Your task to perform on an android device: Search for vegetarian restaurants on Maps Image 0: 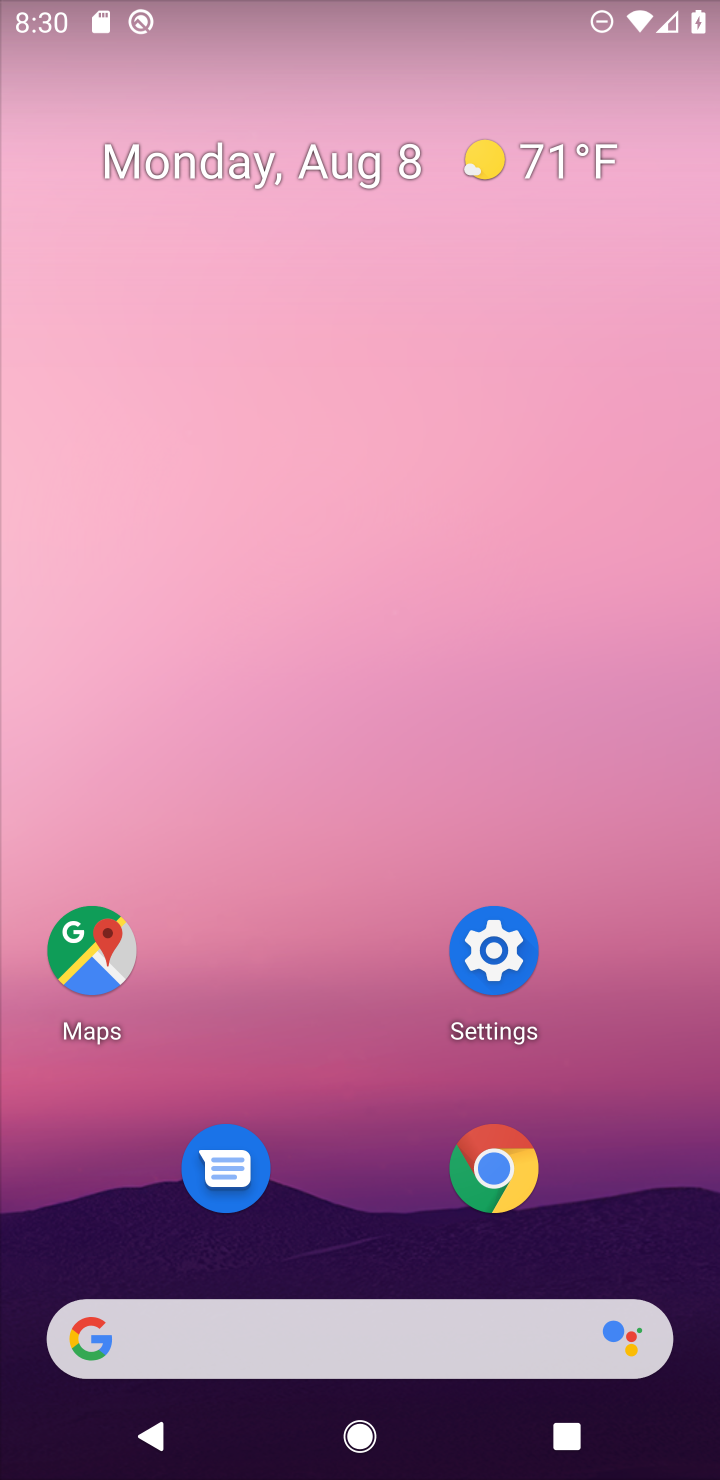
Step 0: press home button
Your task to perform on an android device: Search for vegetarian restaurants on Maps Image 1: 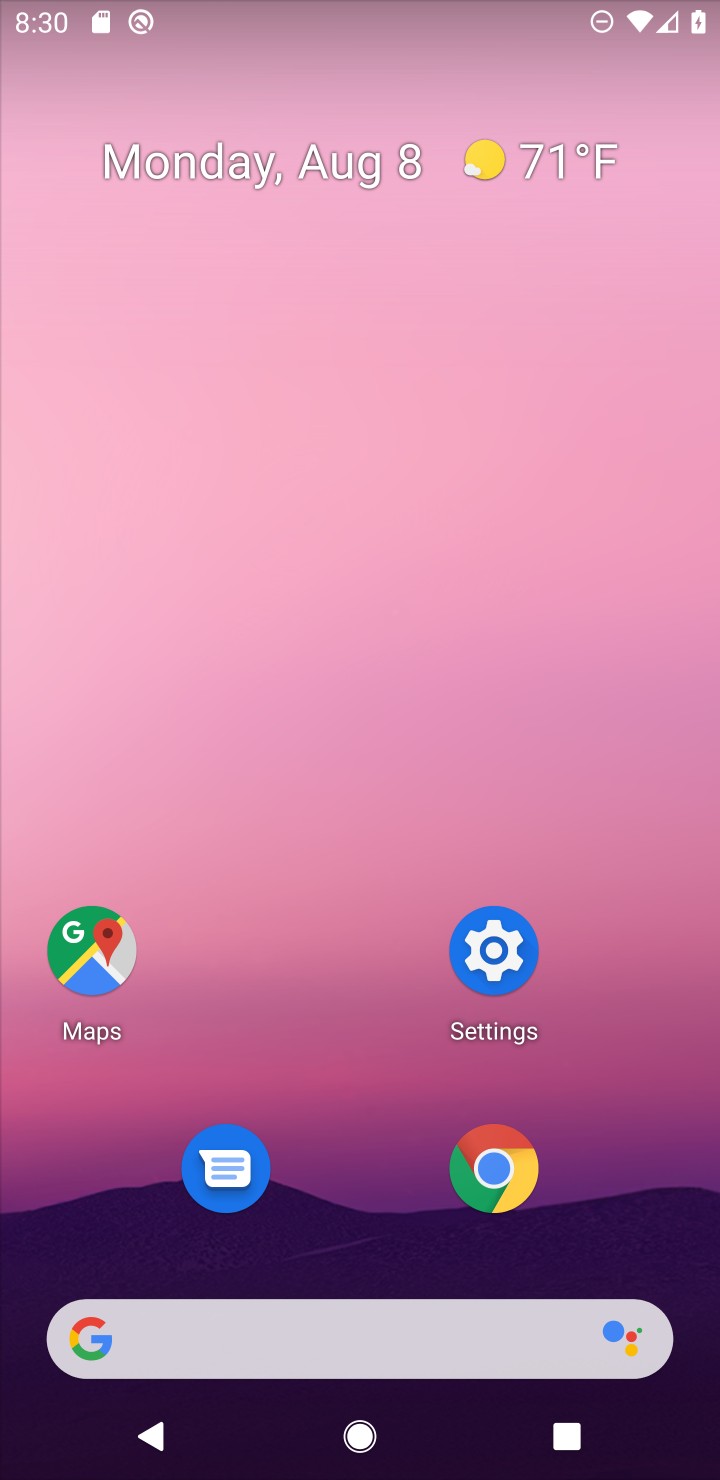
Step 1: click (88, 955)
Your task to perform on an android device: Search for vegetarian restaurants on Maps Image 2: 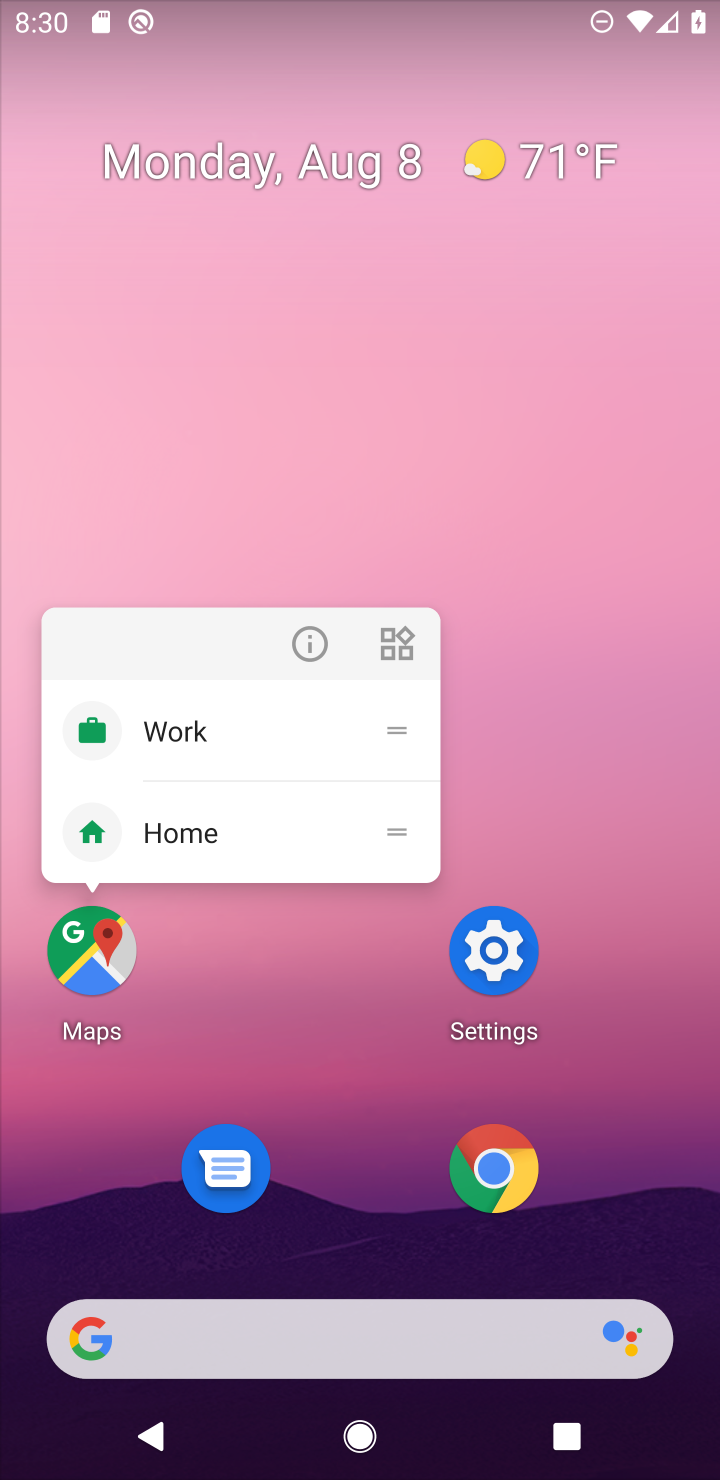
Step 2: click (88, 955)
Your task to perform on an android device: Search for vegetarian restaurants on Maps Image 3: 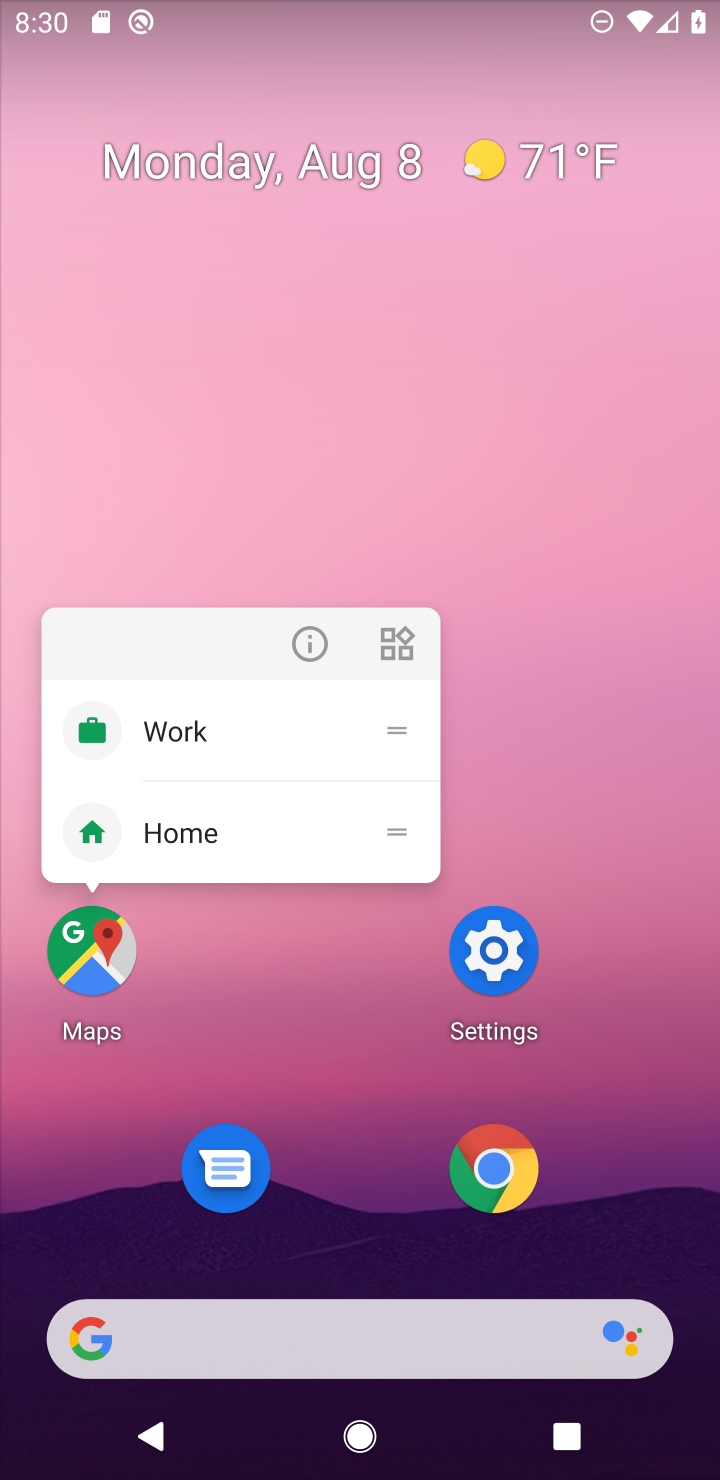
Step 3: click (88, 960)
Your task to perform on an android device: Search for vegetarian restaurants on Maps Image 4: 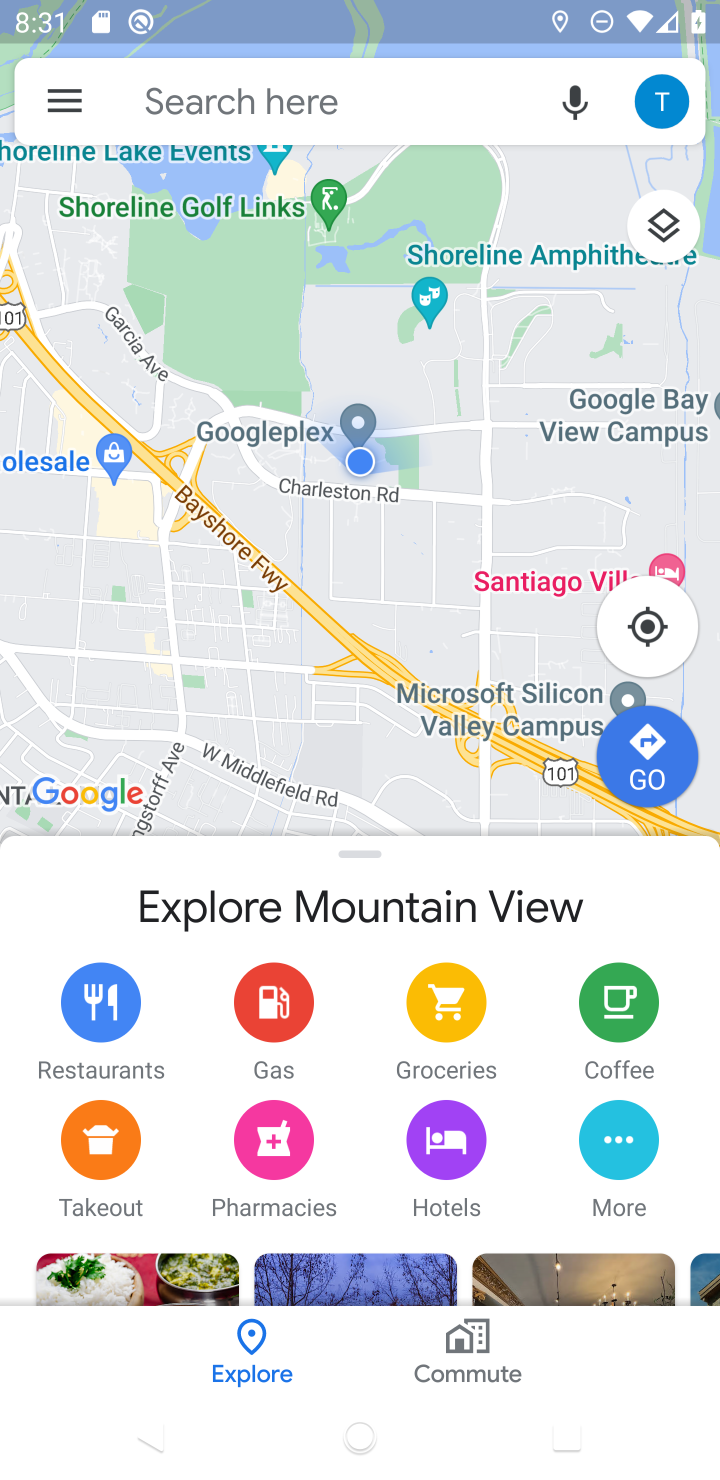
Step 4: click (276, 86)
Your task to perform on an android device: Search for vegetarian restaurants on Maps Image 5: 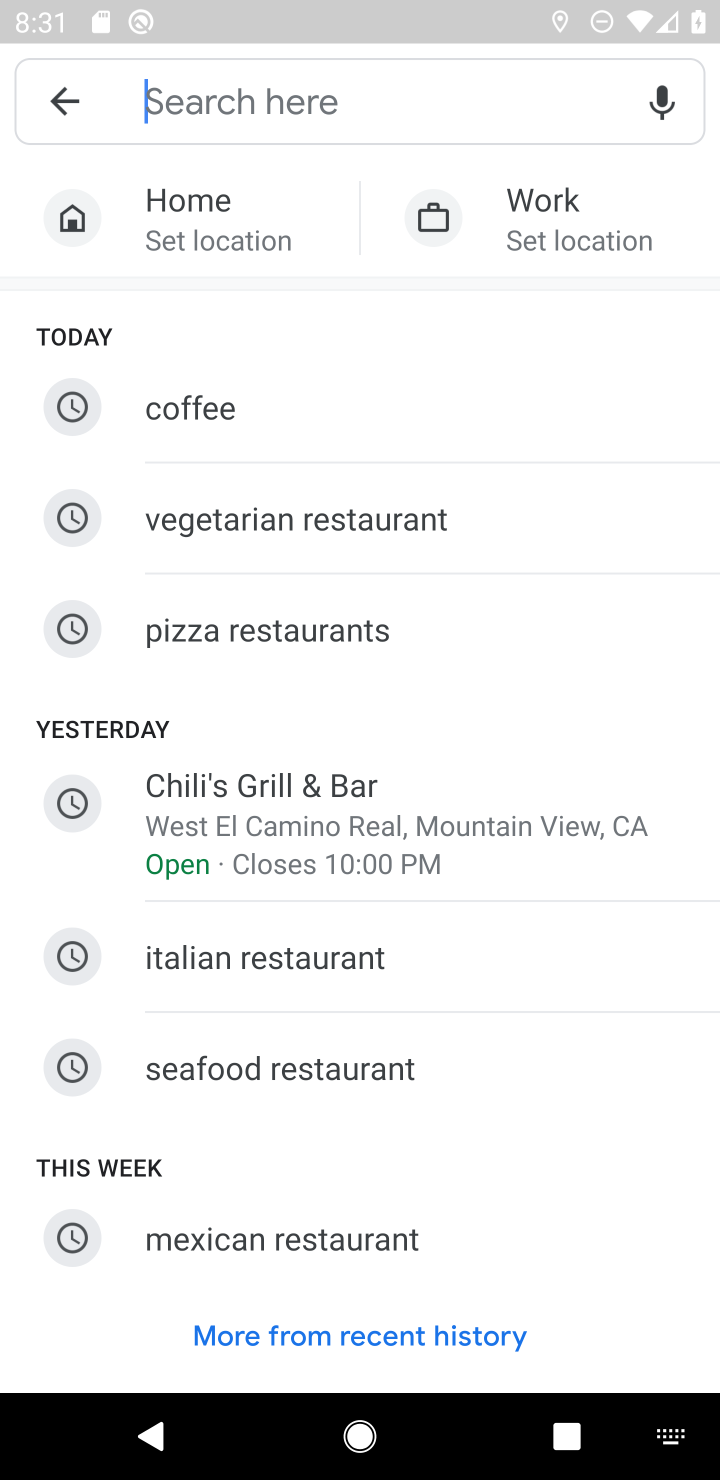
Step 5: click (218, 514)
Your task to perform on an android device: Search for vegetarian restaurants on Maps Image 6: 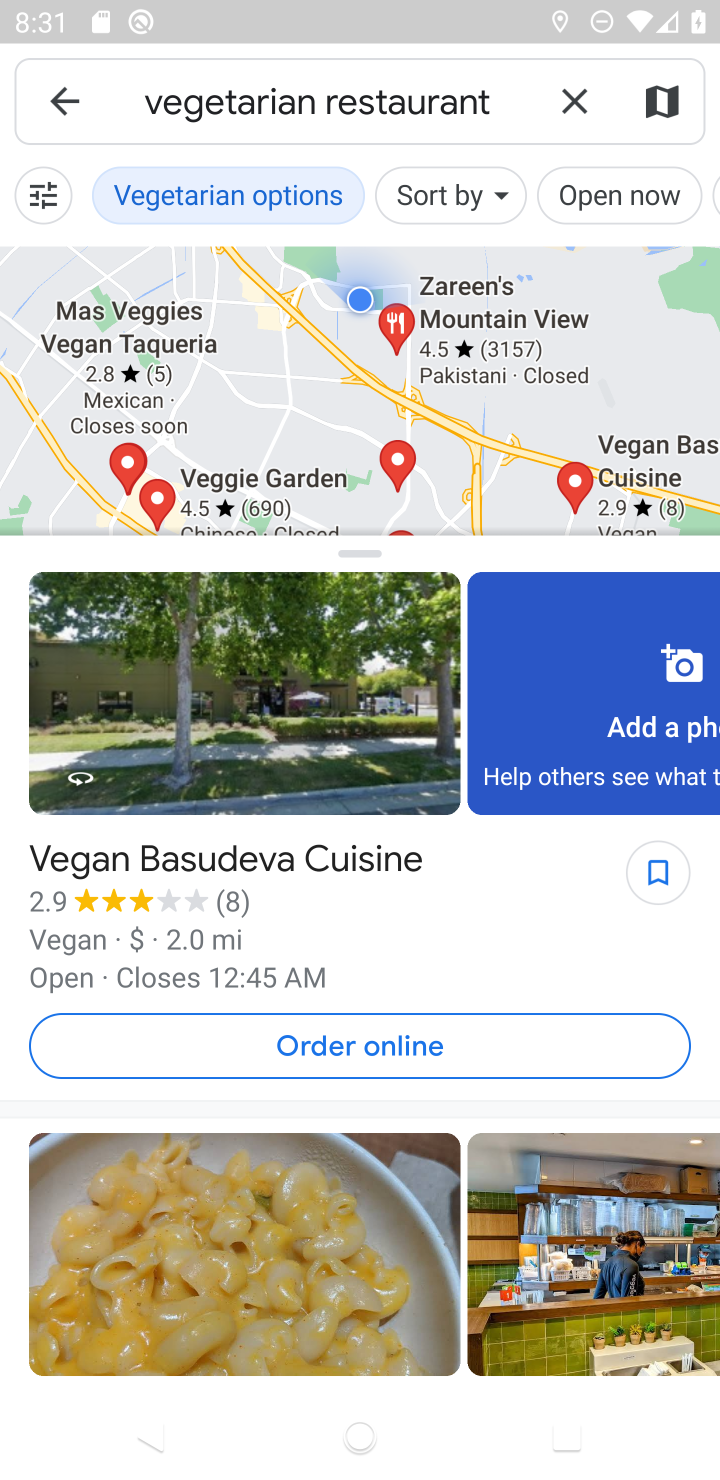
Step 6: task complete